Your task to perform on an android device: toggle pop-ups in chrome Image 0: 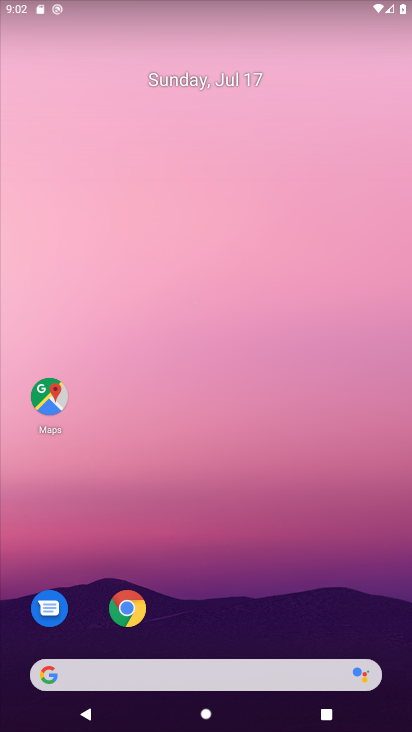
Step 0: drag from (250, 630) to (214, 226)
Your task to perform on an android device: toggle pop-ups in chrome Image 1: 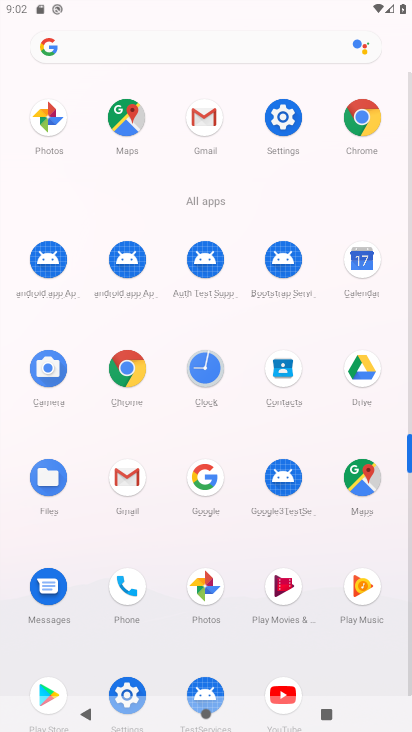
Step 1: click (355, 118)
Your task to perform on an android device: toggle pop-ups in chrome Image 2: 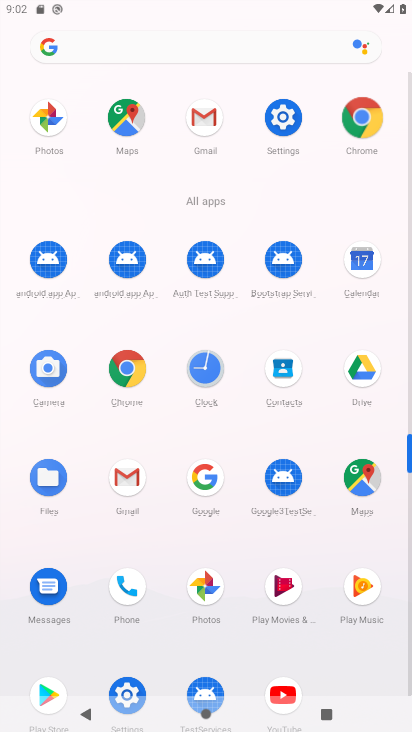
Step 2: click (364, 117)
Your task to perform on an android device: toggle pop-ups in chrome Image 3: 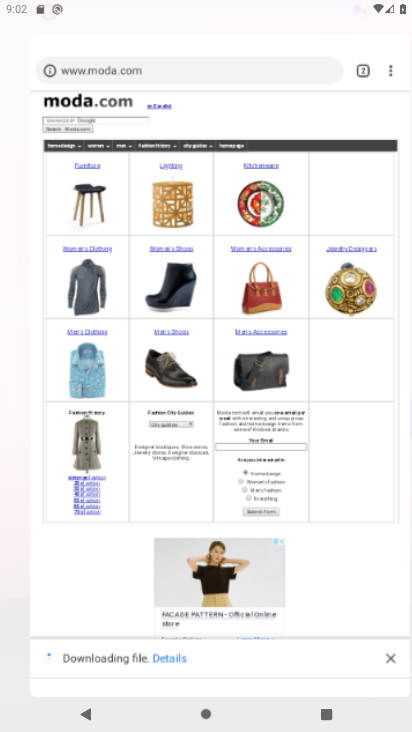
Step 3: click (365, 117)
Your task to perform on an android device: toggle pop-ups in chrome Image 4: 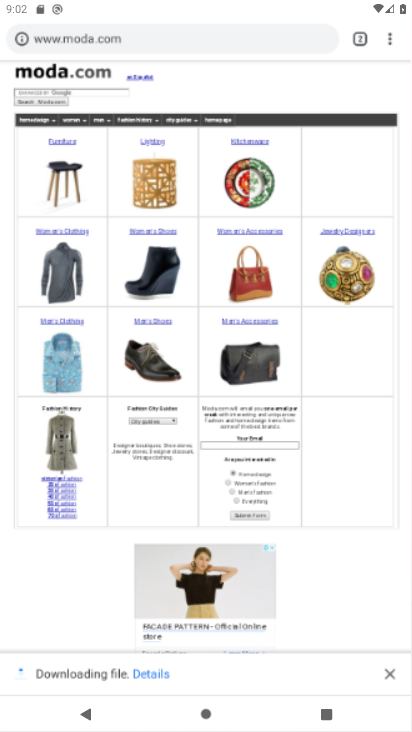
Step 4: click (365, 117)
Your task to perform on an android device: toggle pop-ups in chrome Image 5: 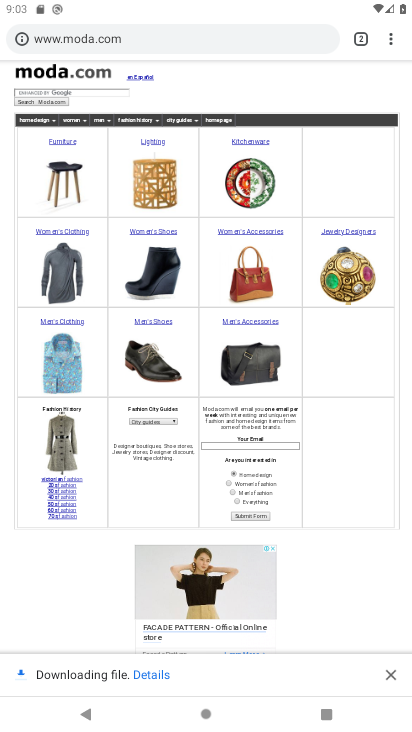
Step 5: drag from (391, 39) to (245, 476)
Your task to perform on an android device: toggle pop-ups in chrome Image 6: 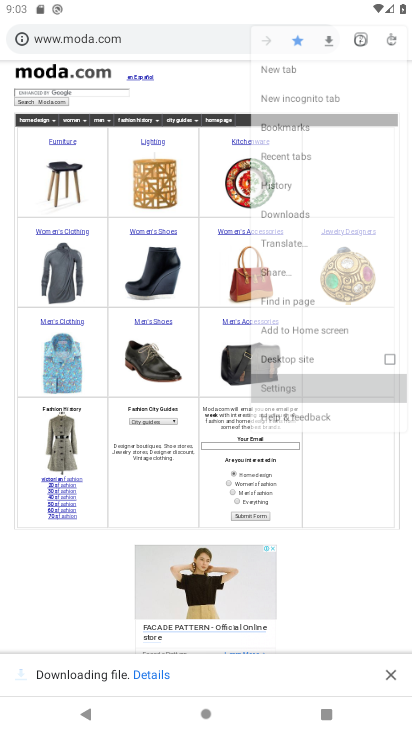
Step 6: click (246, 476)
Your task to perform on an android device: toggle pop-ups in chrome Image 7: 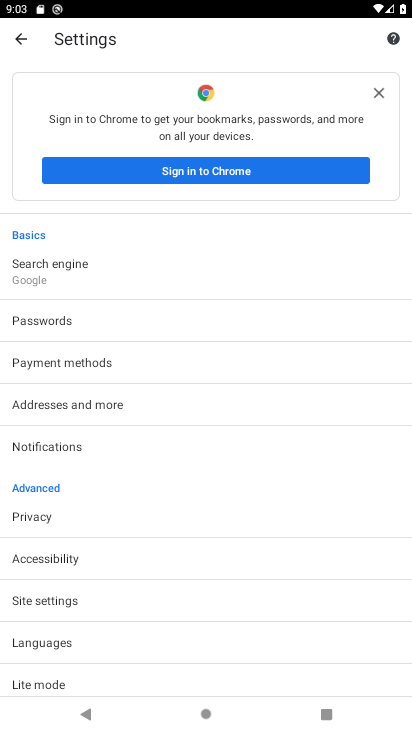
Step 7: click (27, 46)
Your task to perform on an android device: toggle pop-ups in chrome Image 8: 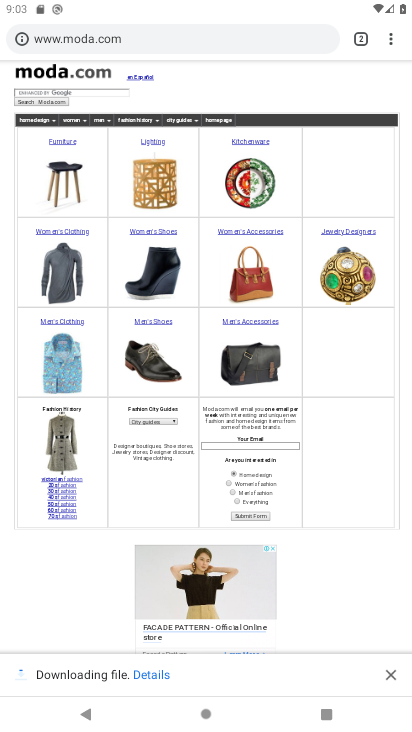
Step 8: click (386, 39)
Your task to perform on an android device: toggle pop-ups in chrome Image 9: 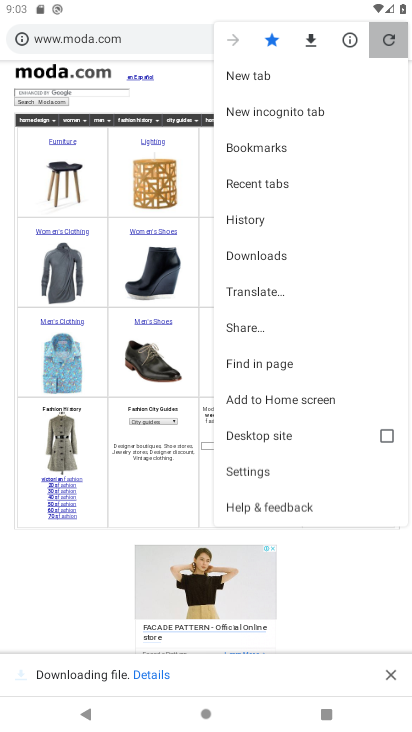
Step 9: click (397, 40)
Your task to perform on an android device: toggle pop-ups in chrome Image 10: 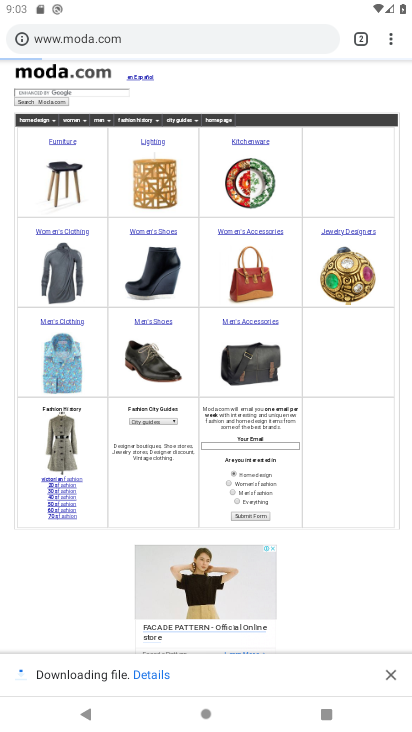
Step 10: click (391, 46)
Your task to perform on an android device: toggle pop-ups in chrome Image 11: 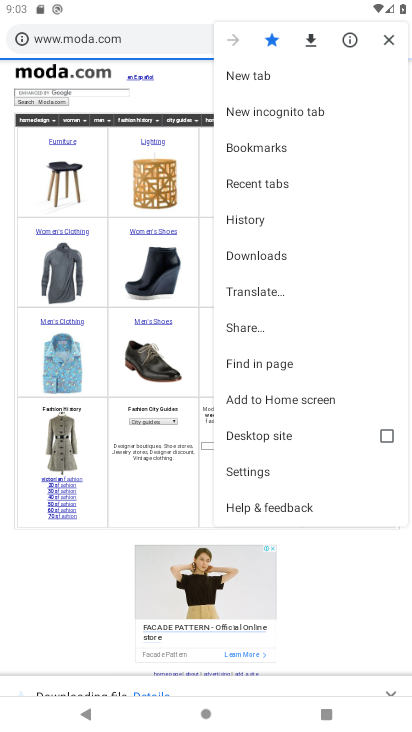
Step 11: drag from (376, 55) to (252, 472)
Your task to perform on an android device: toggle pop-ups in chrome Image 12: 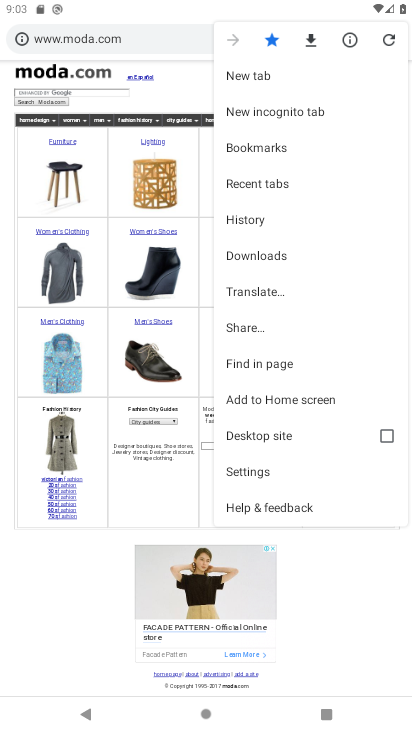
Step 12: click (251, 472)
Your task to perform on an android device: toggle pop-ups in chrome Image 13: 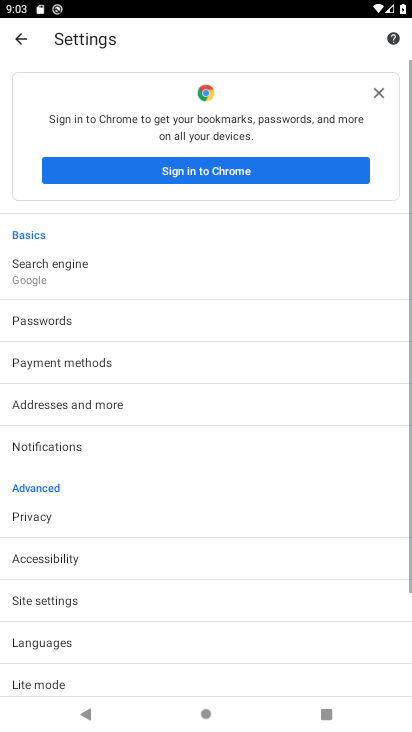
Step 13: drag from (123, 593) to (103, 158)
Your task to perform on an android device: toggle pop-ups in chrome Image 14: 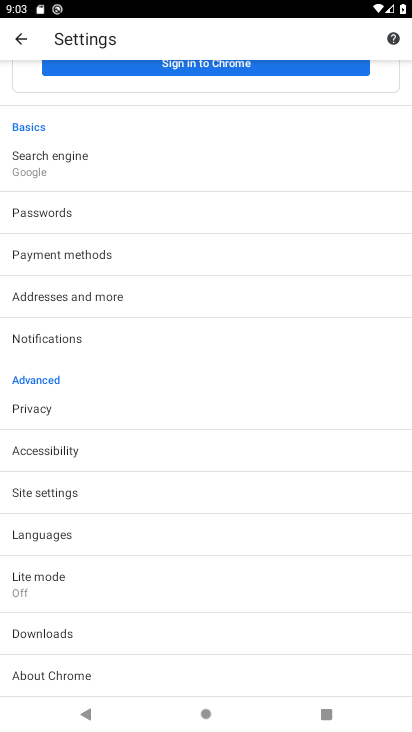
Step 14: click (30, 481)
Your task to perform on an android device: toggle pop-ups in chrome Image 15: 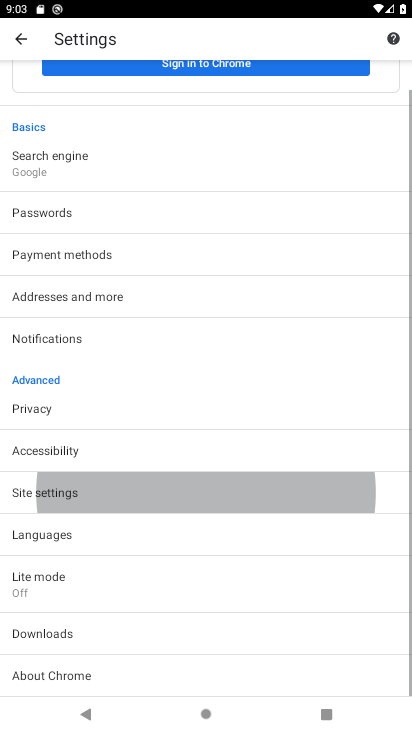
Step 15: click (29, 483)
Your task to perform on an android device: toggle pop-ups in chrome Image 16: 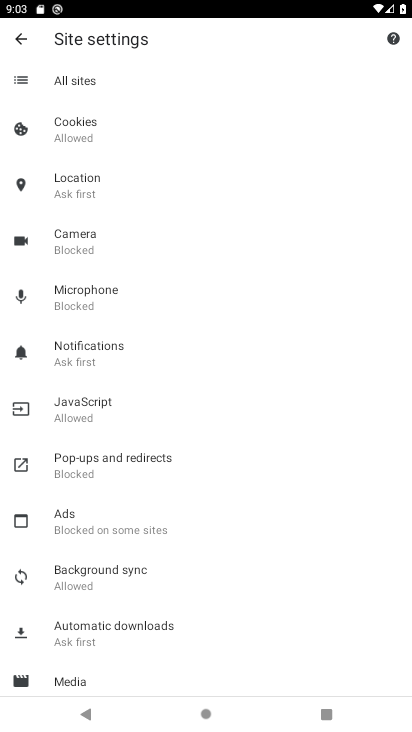
Step 16: click (90, 461)
Your task to perform on an android device: toggle pop-ups in chrome Image 17: 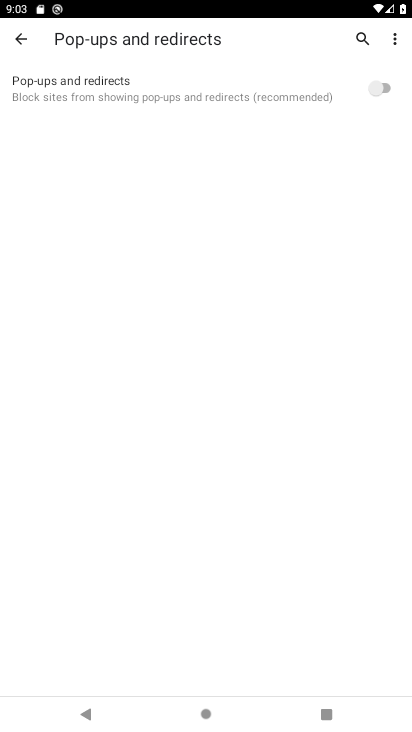
Step 17: task complete